Your task to perform on an android device: toggle location history Image 0: 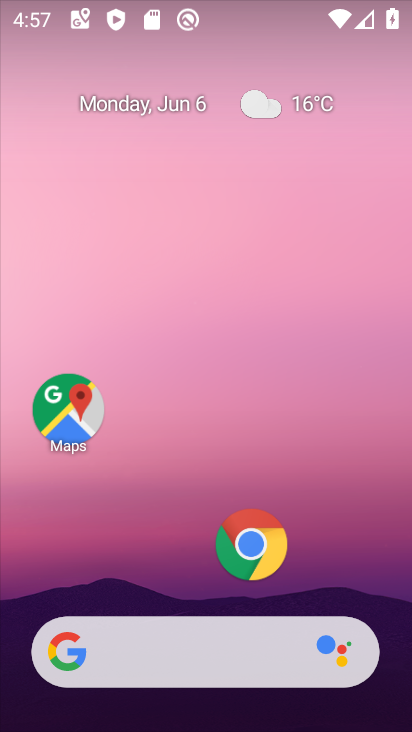
Step 0: drag from (176, 585) to (217, 76)
Your task to perform on an android device: toggle location history Image 1: 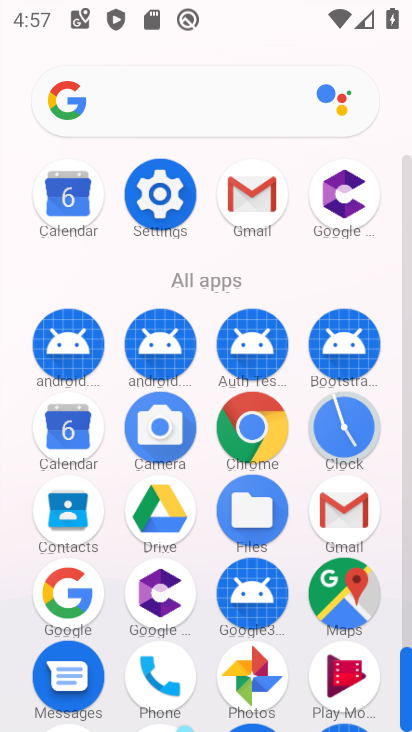
Step 1: click (157, 207)
Your task to perform on an android device: toggle location history Image 2: 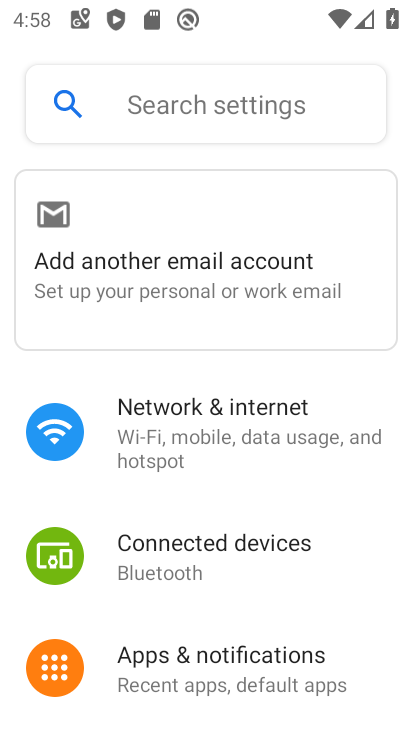
Step 2: drag from (206, 690) to (215, 81)
Your task to perform on an android device: toggle location history Image 3: 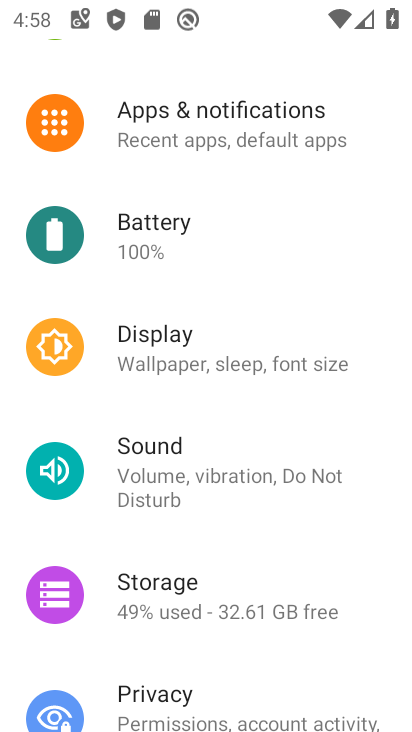
Step 3: drag from (184, 677) to (212, 91)
Your task to perform on an android device: toggle location history Image 4: 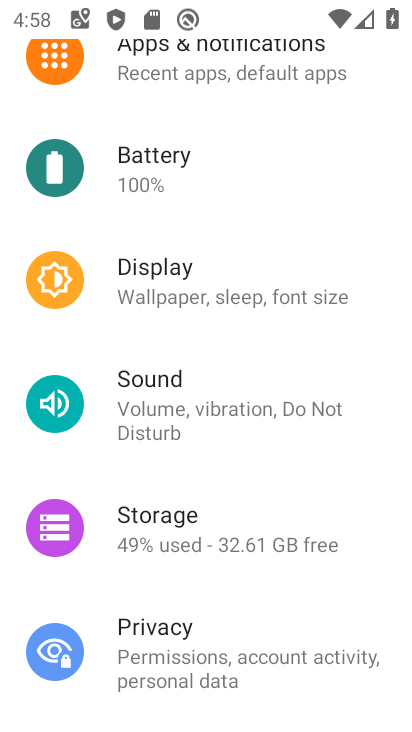
Step 4: drag from (198, 669) to (240, 143)
Your task to perform on an android device: toggle location history Image 5: 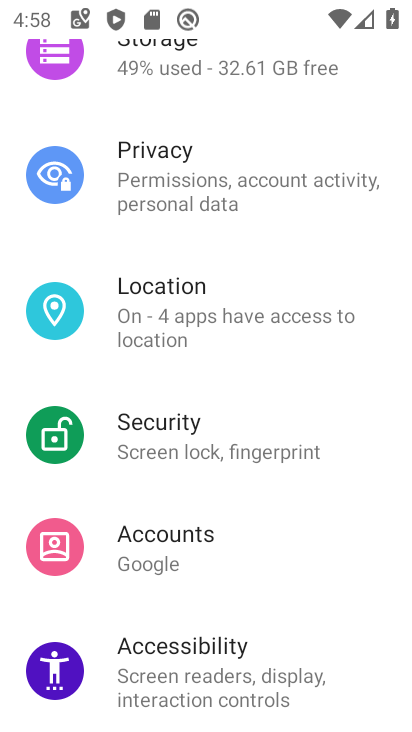
Step 5: click (186, 294)
Your task to perform on an android device: toggle location history Image 6: 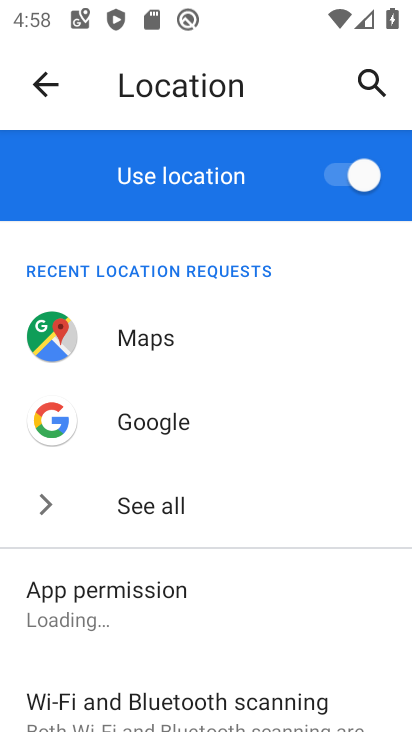
Step 6: drag from (184, 661) to (188, 232)
Your task to perform on an android device: toggle location history Image 7: 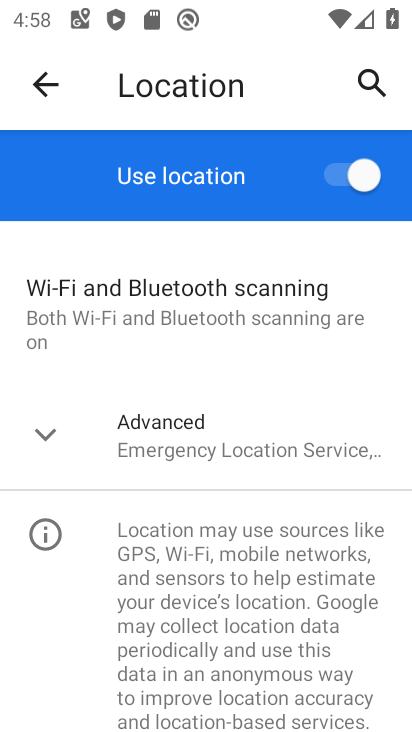
Step 7: click (54, 434)
Your task to perform on an android device: toggle location history Image 8: 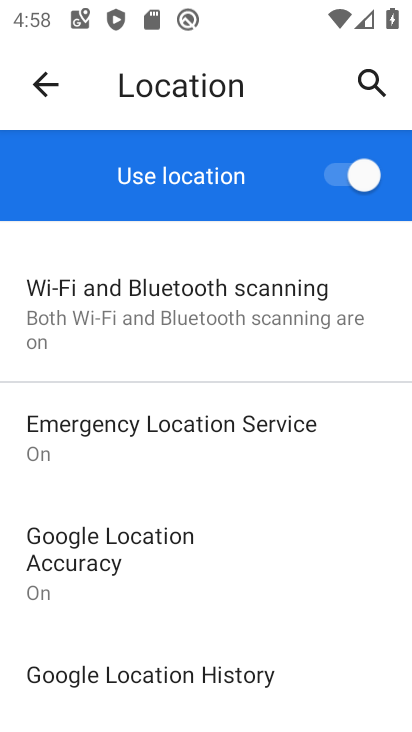
Step 8: click (206, 673)
Your task to perform on an android device: toggle location history Image 9: 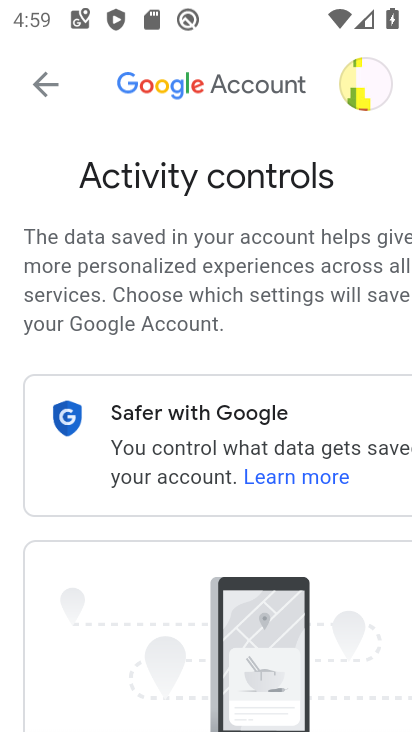
Step 9: task complete